Your task to perform on an android device: Go to privacy settings Image 0: 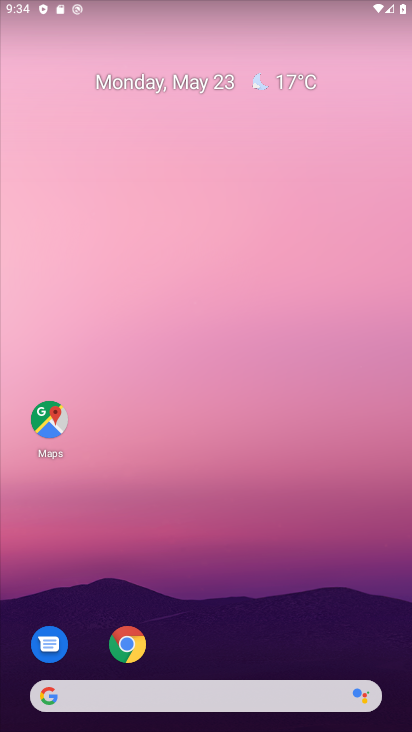
Step 0: drag from (179, 662) to (193, 384)
Your task to perform on an android device: Go to privacy settings Image 1: 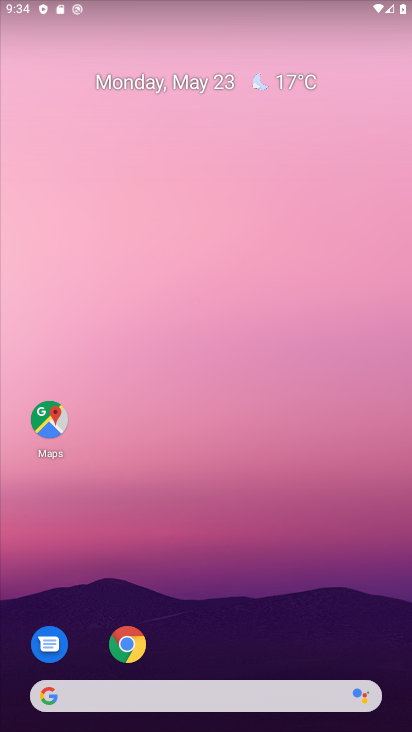
Step 1: drag from (186, 659) to (302, 351)
Your task to perform on an android device: Go to privacy settings Image 2: 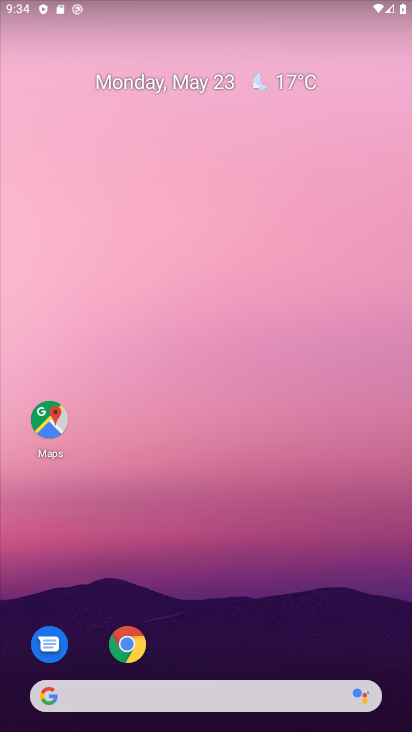
Step 2: drag from (201, 661) to (282, 236)
Your task to perform on an android device: Go to privacy settings Image 3: 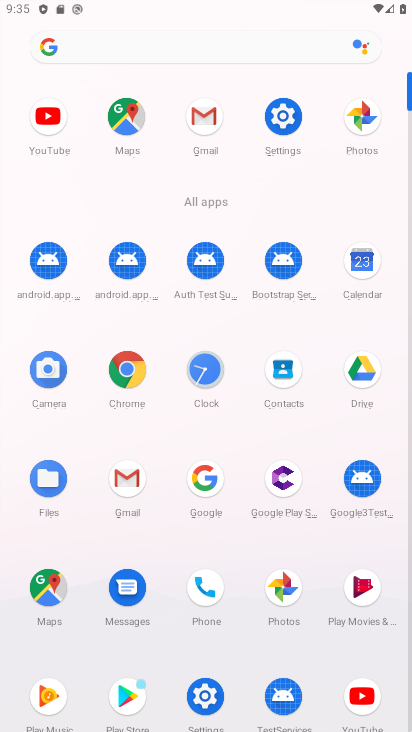
Step 3: click (283, 124)
Your task to perform on an android device: Go to privacy settings Image 4: 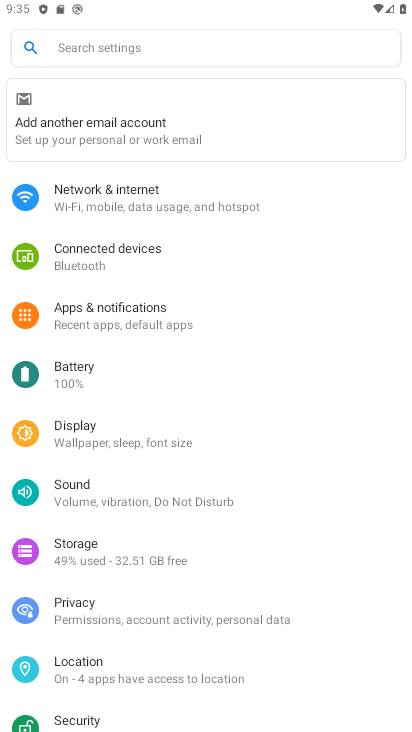
Step 4: click (99, 602)
Your task to perform on an android device: Go to privacy settings Image 5: 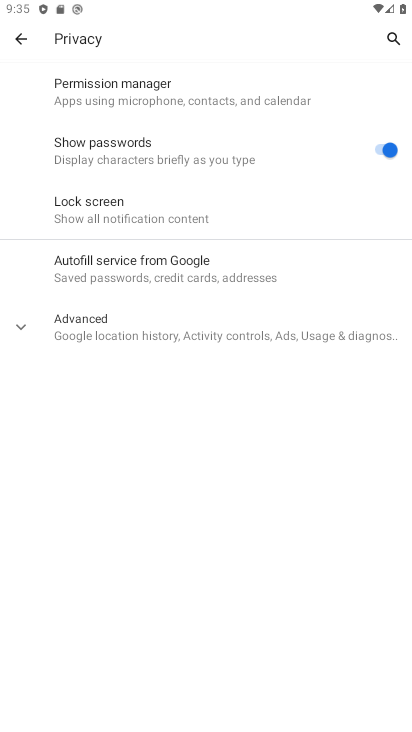
Step 5: task complete